Your task to perform on an android device: turn on location history Image 0: 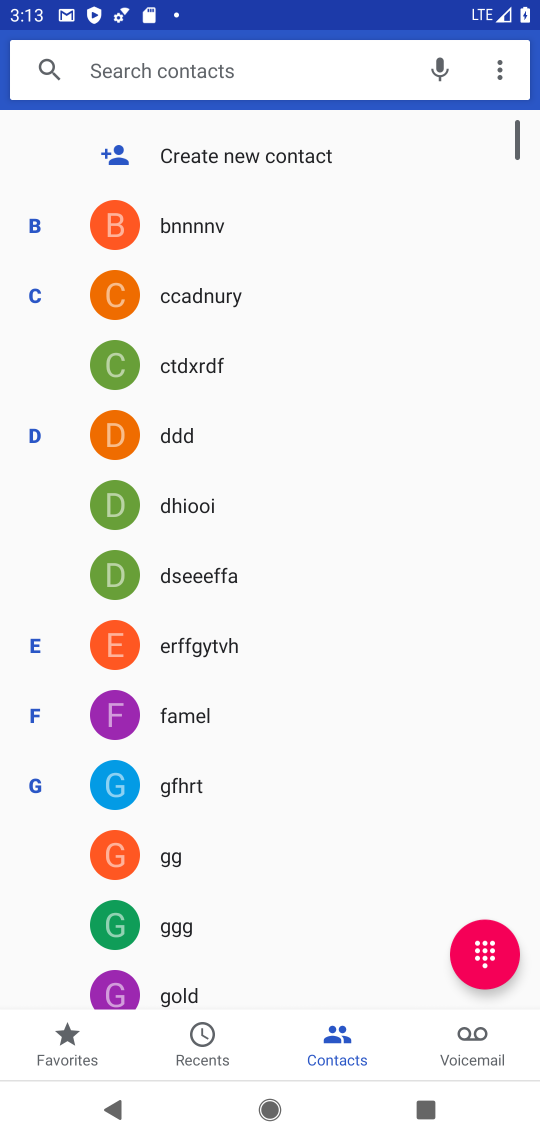
Step 0: press home button
Your task to perform on an android device: turn on location history Image 1: 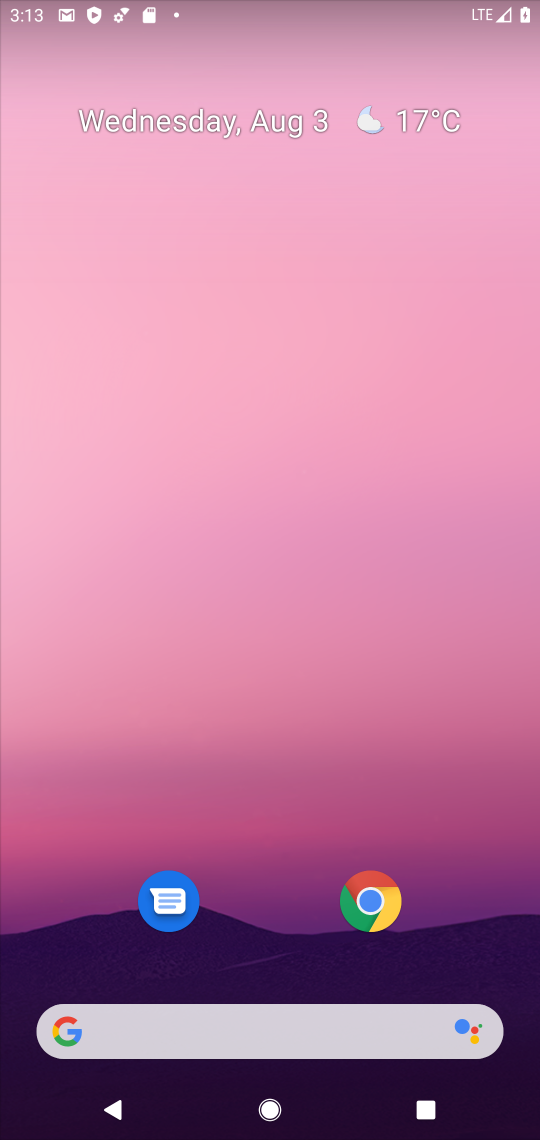
Step 1: drag from (191, 913) to (232, 211)
Your task to perform on an android device: turn on location history Image 2: 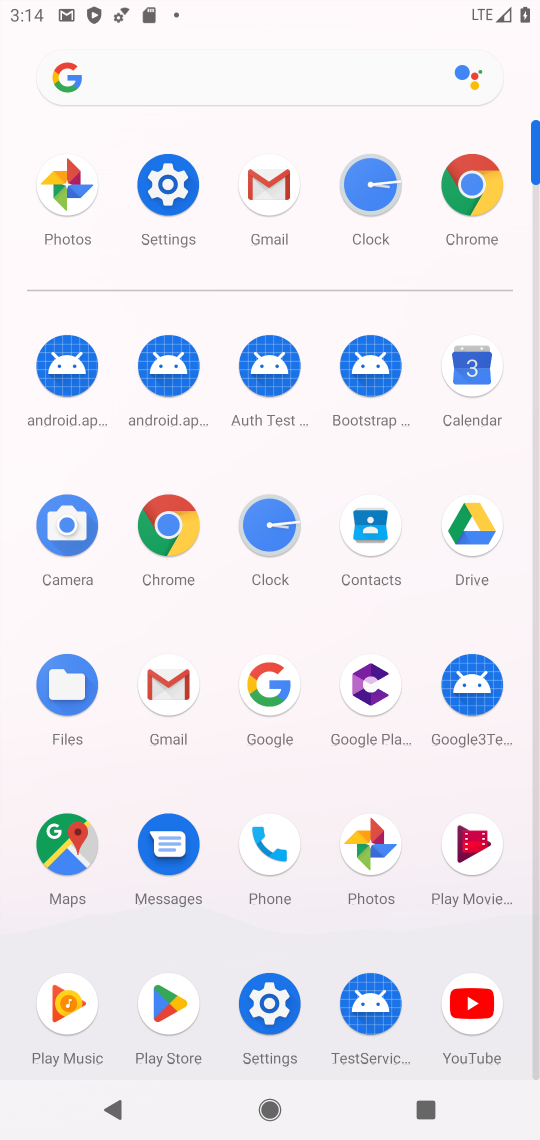
Step 2: click (174, 168)
Your task to perform on an android device: turn on location history Image 3: 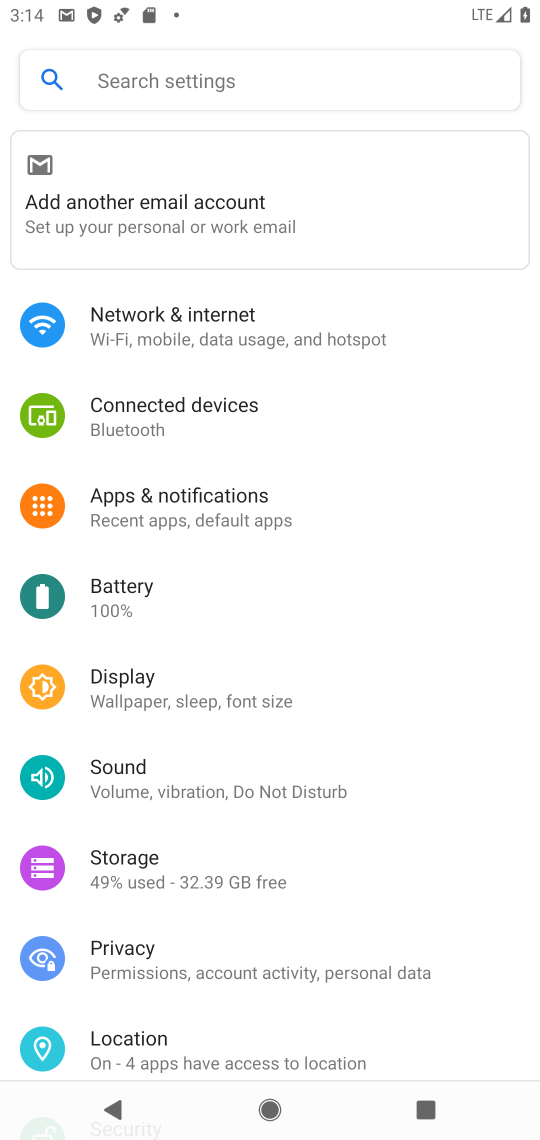
Step 3: click (198, 1049)
Your task to perform on an android device: turn on location history Image 4: 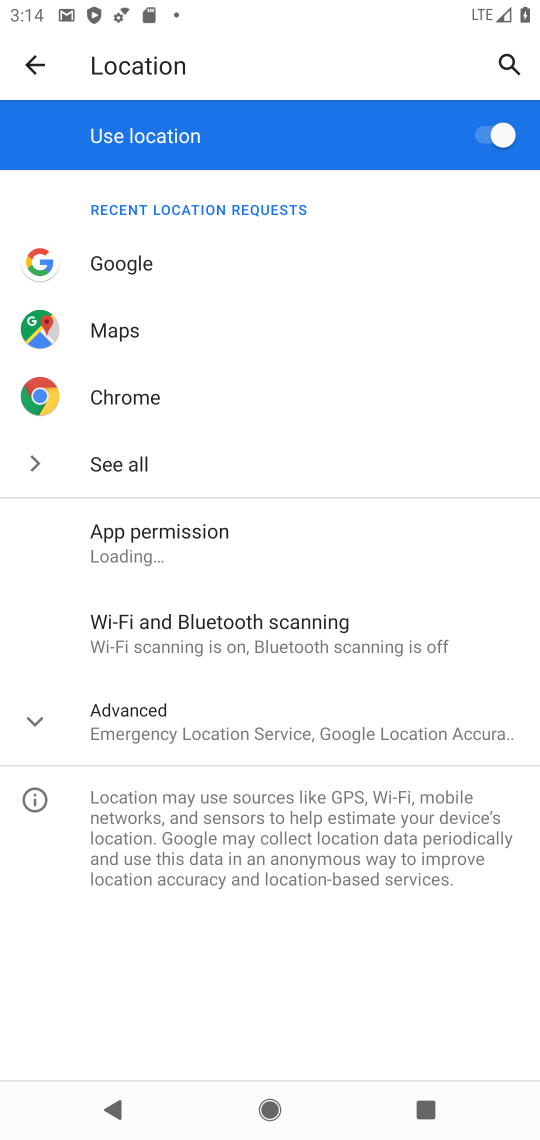
Step 4: click (229, 698)
Your task to perform on an android device: turn on location history Image 5: 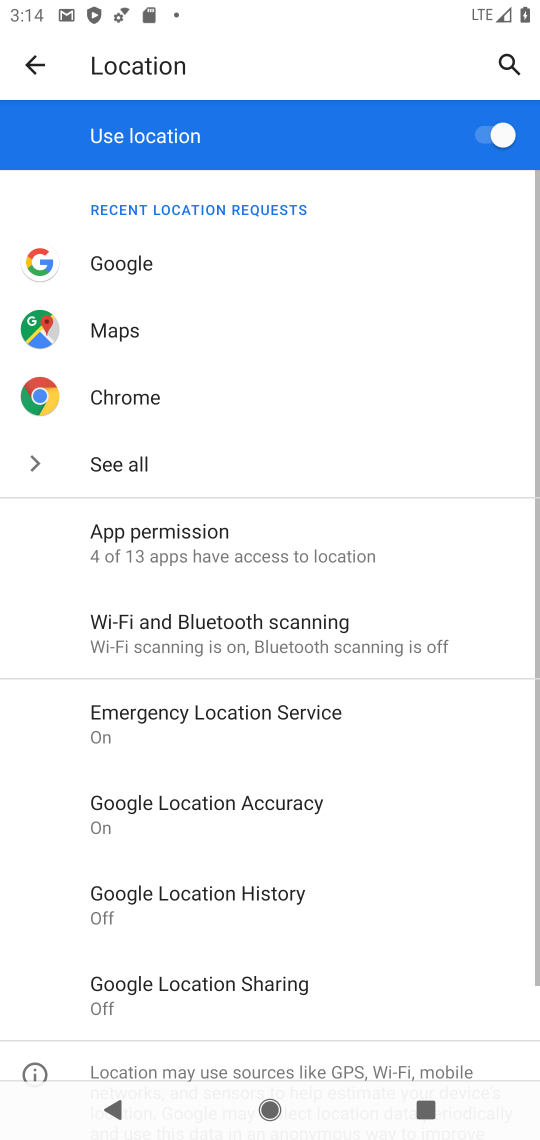
Step 5: click (246, 877)
Your task to perform on an android device: turn on location history Image 6: 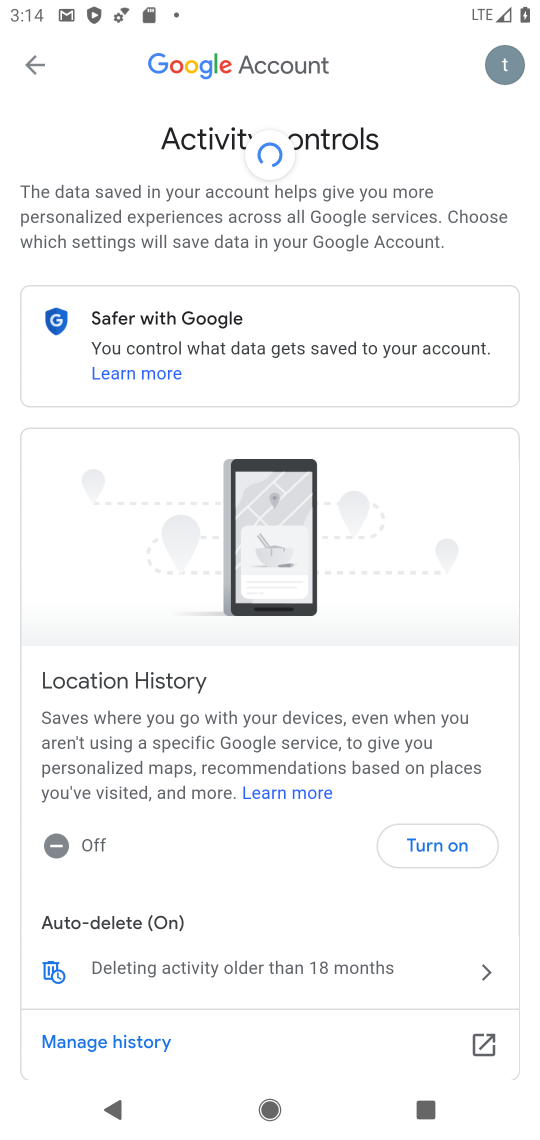
Step 6: click (463, 831)
Your task to perform on an android device: turn on location history Image 7: 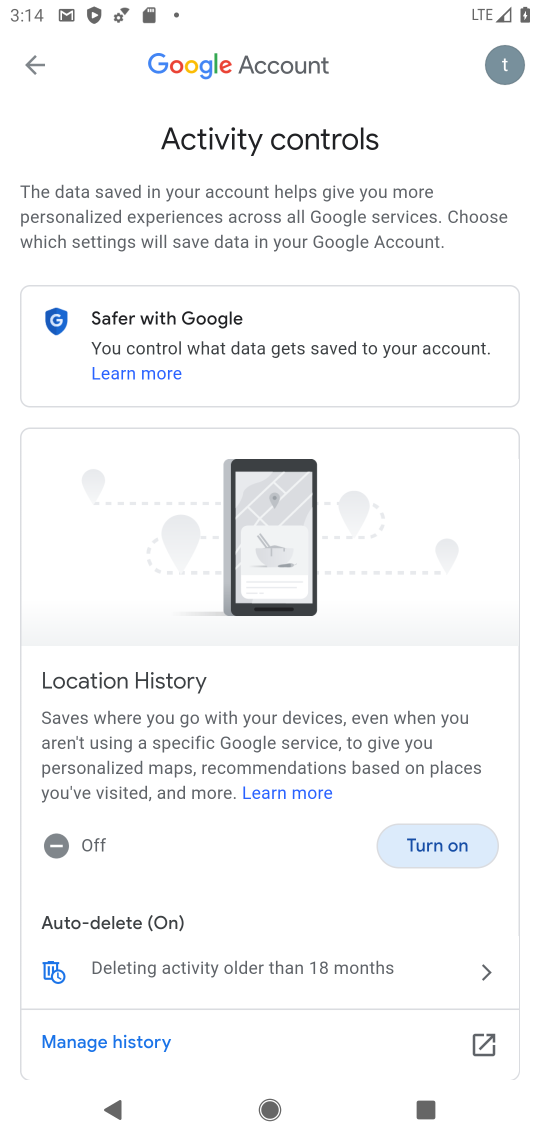
Step 7: click (463, 831)
Your task to perform on an android device: turn on location history Image 8: 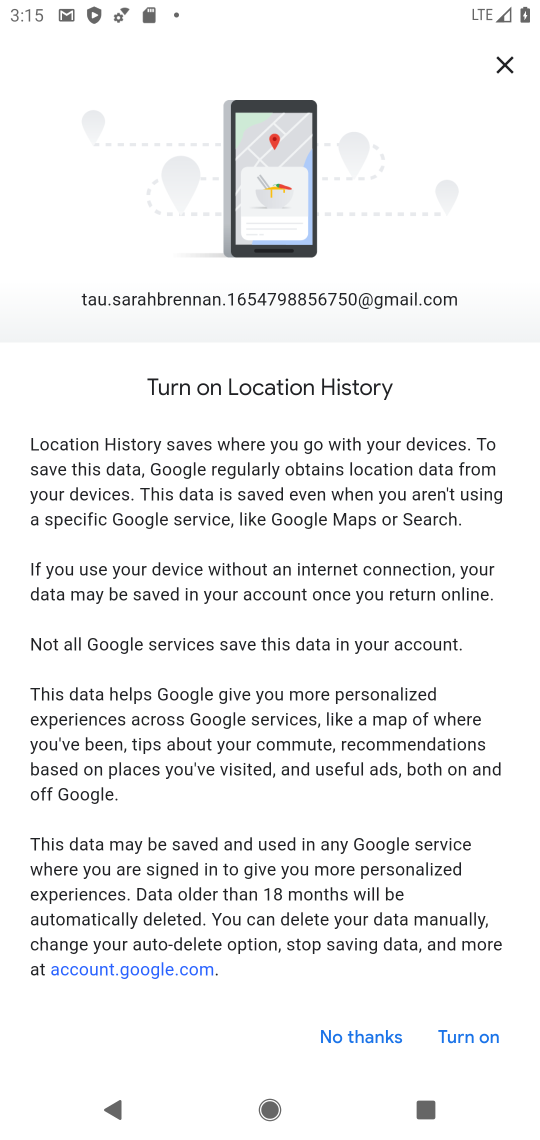
Step 8: task complete